Your task to perform on an android device: Search for pizza restaurants on Maps Image 0: 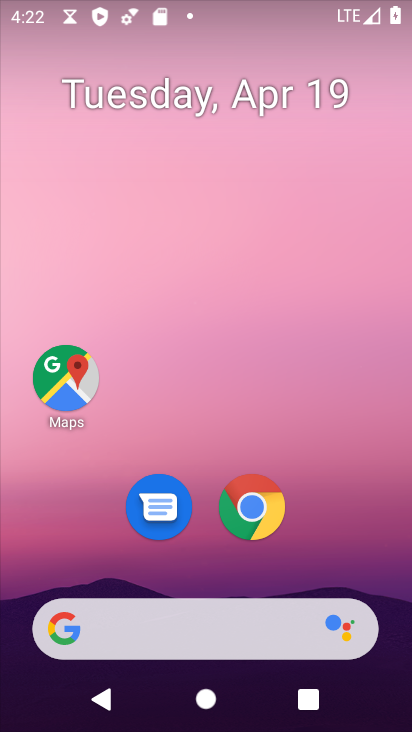
Step 0: click (82, 365)
Your task to perform on an android device: Search for pizza restaurants on Maps Image 1: 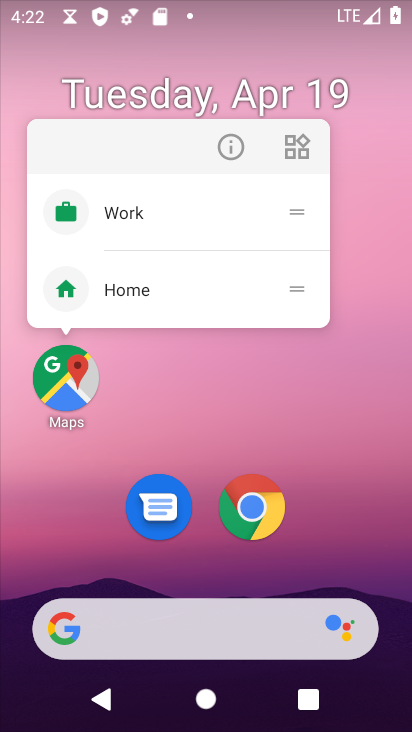
Step 1: click (82, 363)
Your task to perform on an android device: Search for pizza restaurants on Maps Image 2: 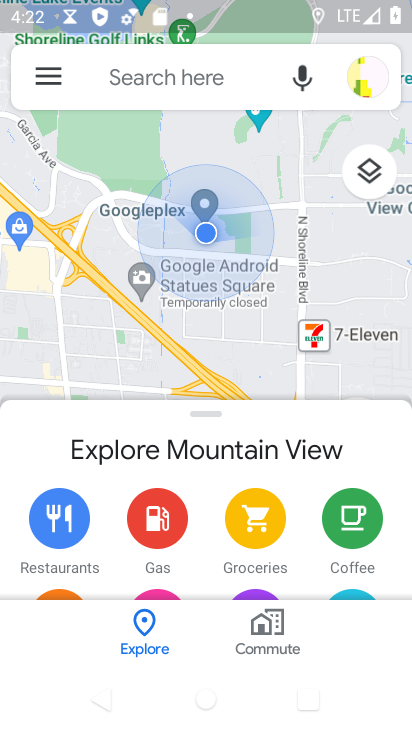
Step 2: click (152, 79)
Your task to perform on an android device: Search for pizza restaurants on Maps Image 3: 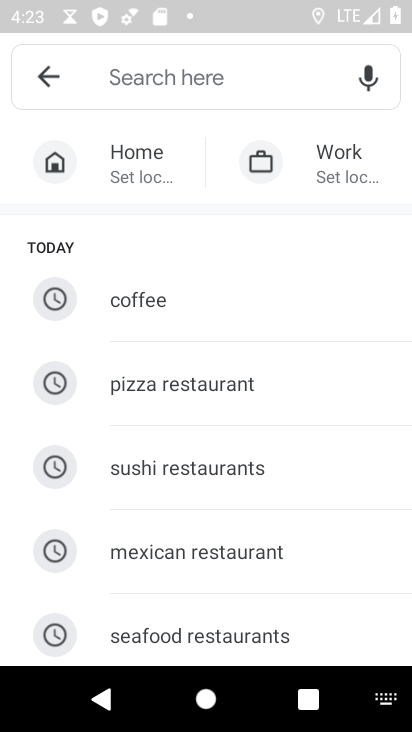
Step 3: type "pizza restaurants"
Your task to perform on an android device: Search for pizza restaurants on Maps Image 4: 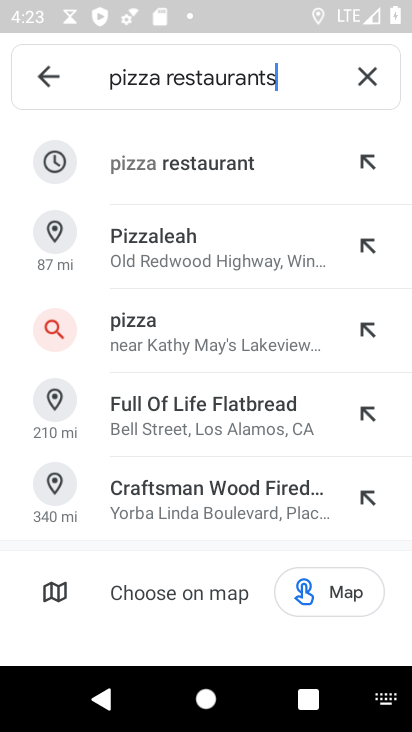
Step 4: click (155, 173)
Your task to perform on an android device: Search for pizza restaurants on Maps Image 5: 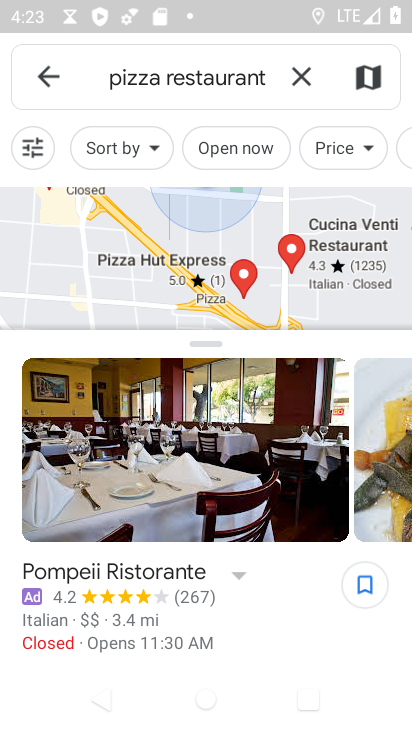
Step 5: task complete